Your task to perform on an android device: Go to Google maps Image 0: 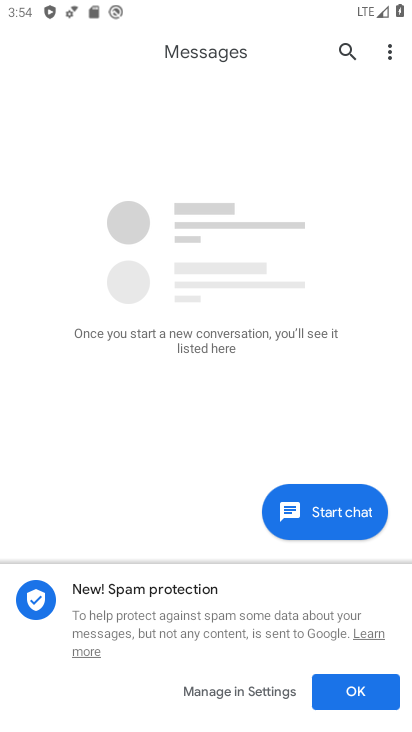
Step 0: press home button
Your task to perform on an android device: Go to Google maps Image 1: 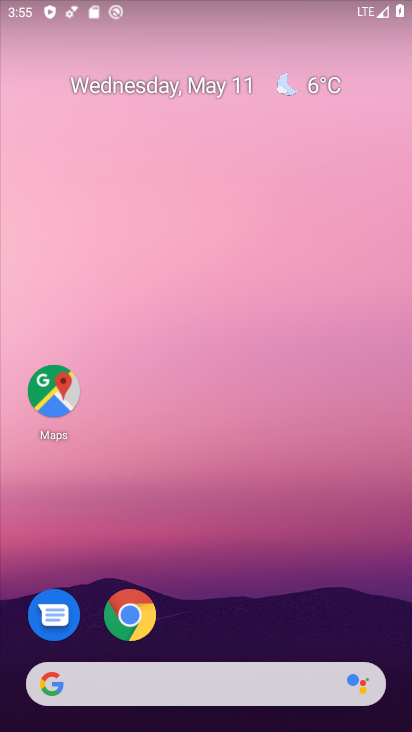
Step 1: drag from (257, 645) to (225, 551)
Your task to perform on an android device: Go to Google maps Image 2: 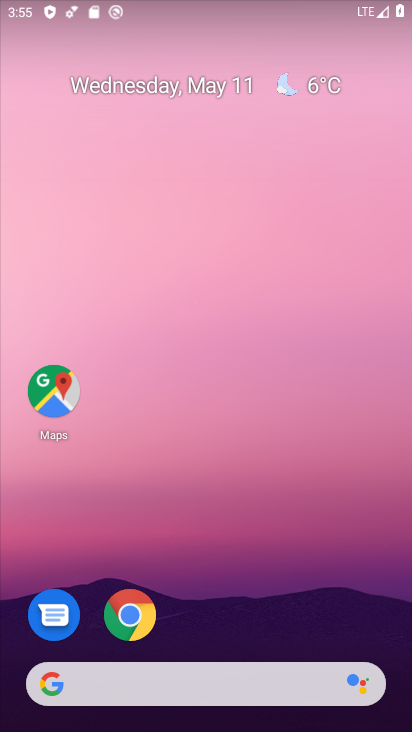
Step 2: click (50, 387)
Your task to perform on an android device: Go to Google maps Image 3: 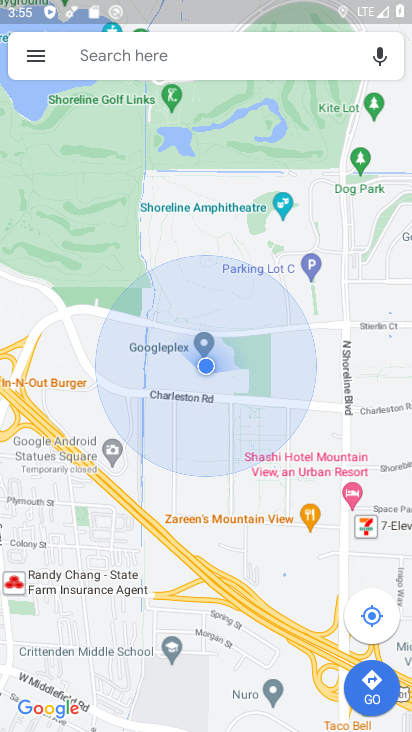
Step 3: task complete